Your task to perform on an android device: What's the weather today? Image 0: 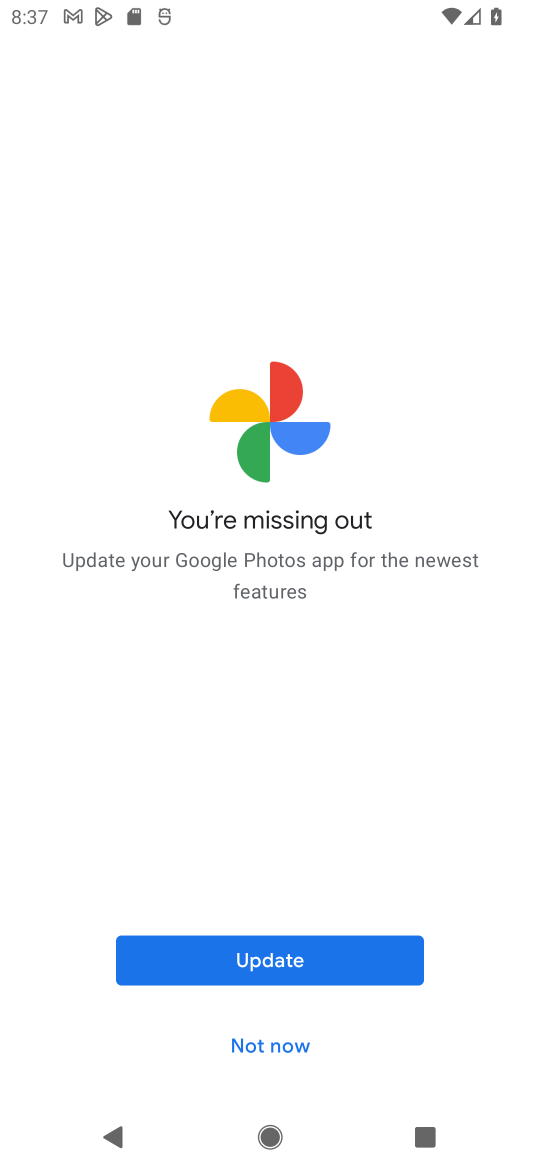
Step 0: press home button
Your task to perform on an android device: What's the weather today? Image 1: 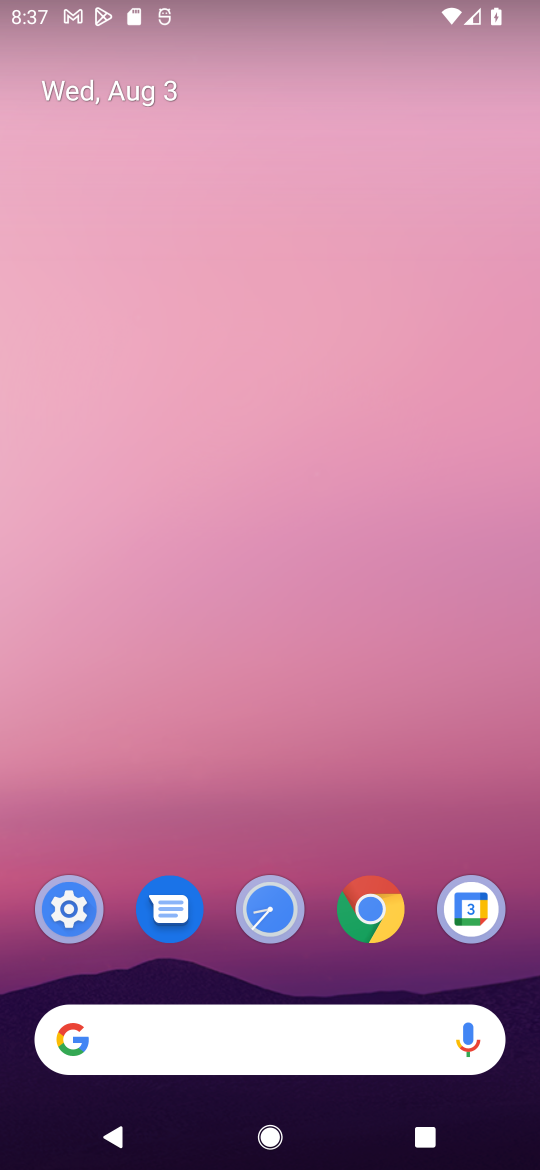
Step 1: click (298, 1035)
Your task to perform on an android device: What's the weather today? Image 2: 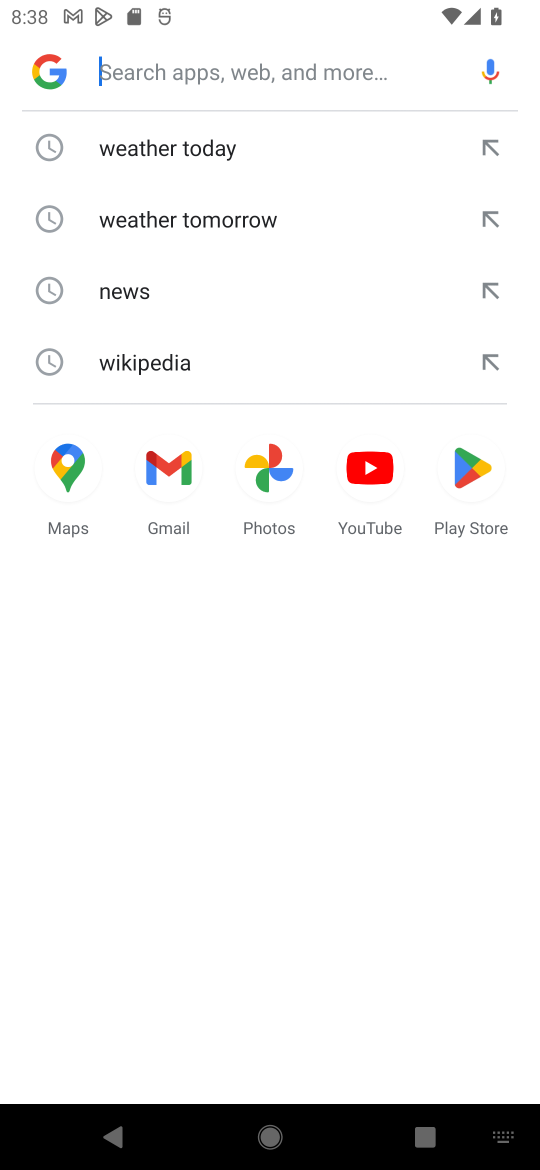
Step 2: click (224, 141)
Your task to perform on an android device: What's the weather today? Image 3: 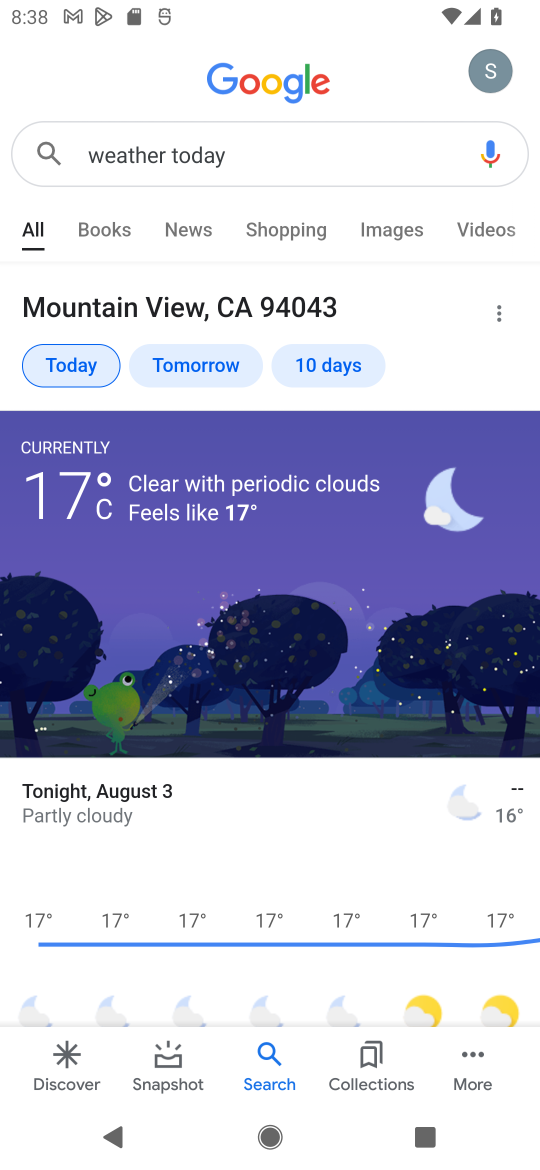
Step 3: task complete